Your task to perform on an android device: Open the web browser Image 0: 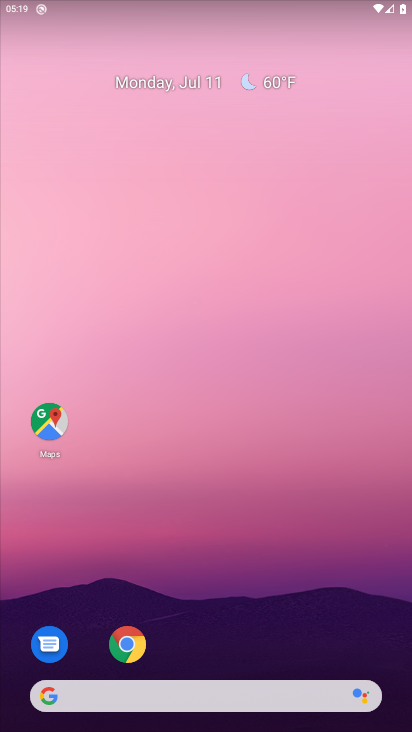
Step 0: click (131, 650)
Your task to perform on an android device: Open the web browser Image 1: 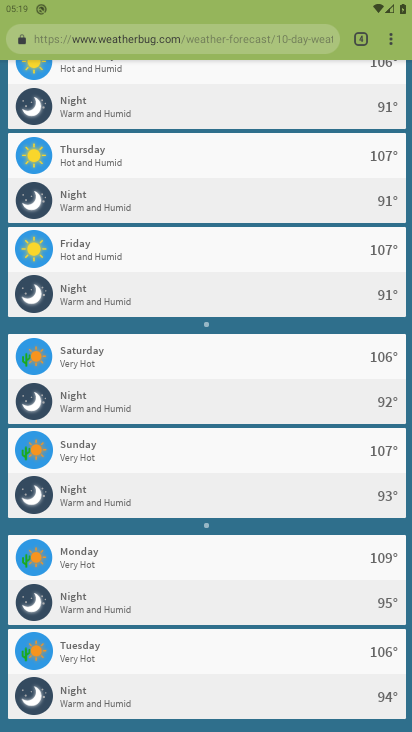
Step 1: click (322, 35)
Your task to perform on an android device: Open the web browser Image 2: 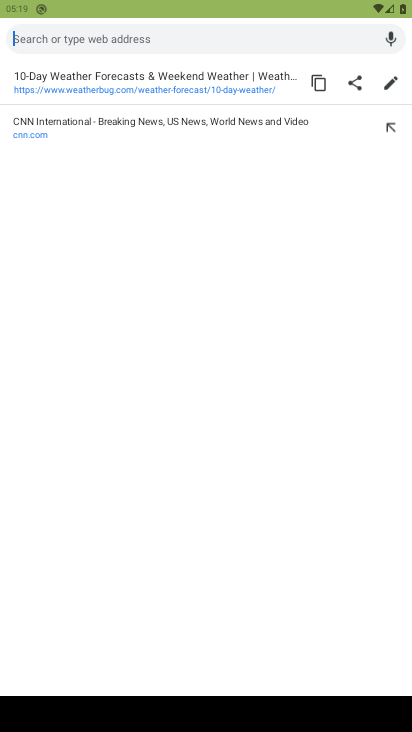
Step 2: task complete